Your task to perform on an android device: toggle translation in the chrome app Image 0: 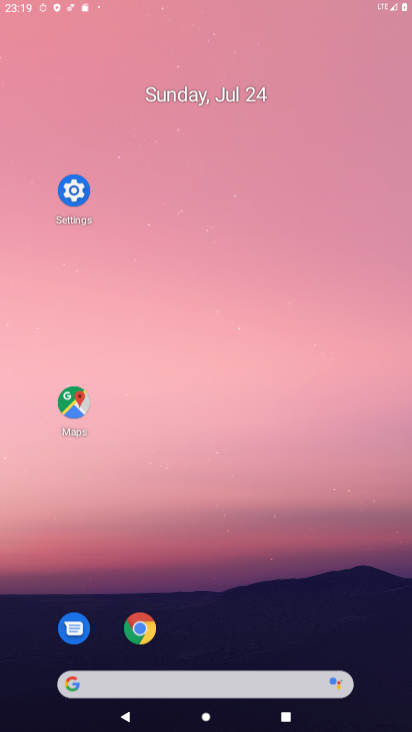
Step 0: drag from (215, 544) to (229, 29)
Your task to perform on an android device: toggle translation in the chrome app Image 1: 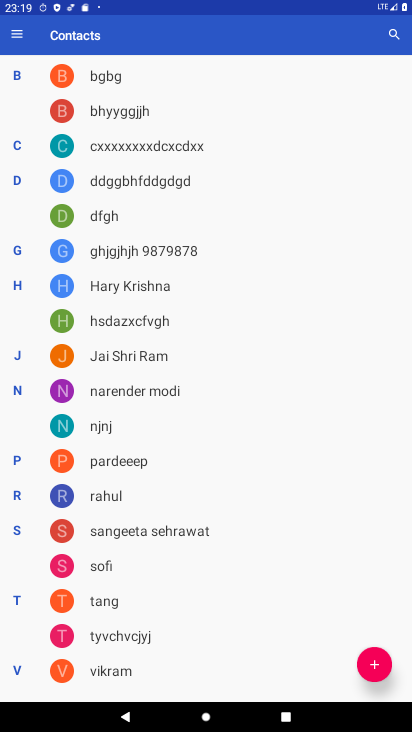
Step 1: press back button
Your task to perform on an android device: toggle translation in the chrome app Image 2: 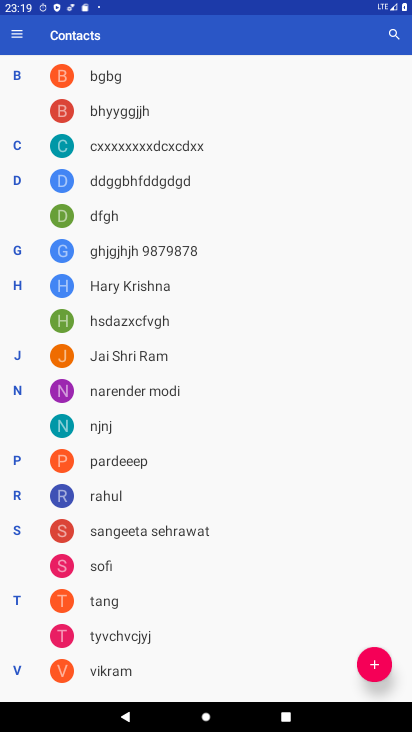
Step 2: press back button
Your task to perform on an android device: toggle translation in the chrome app Image 3: 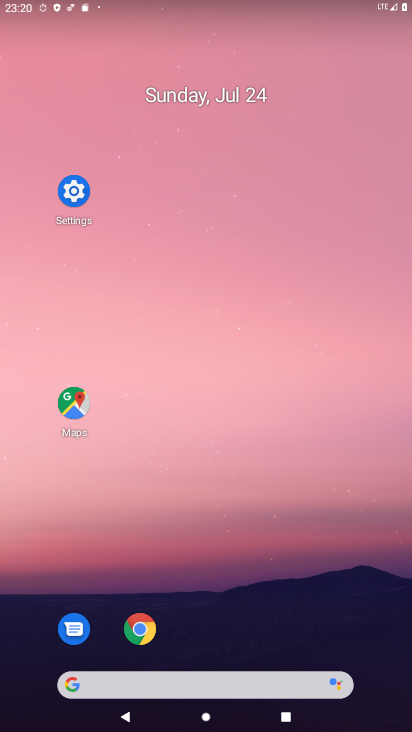
Step 3: drag from (161, 424) to (143, 269)
Your task to perform on an android device: toggle translation in the chrome app Image 4: 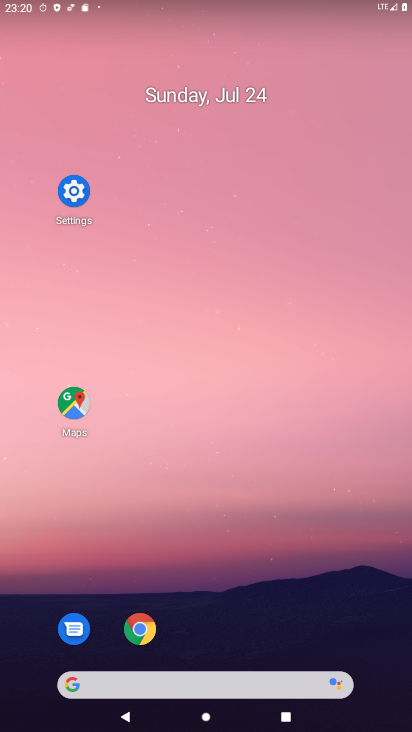
Step 4: drag from (206, 589) to (200, 207)
Your task to perform on an android device: toggle translation in the chrome app Image 5: 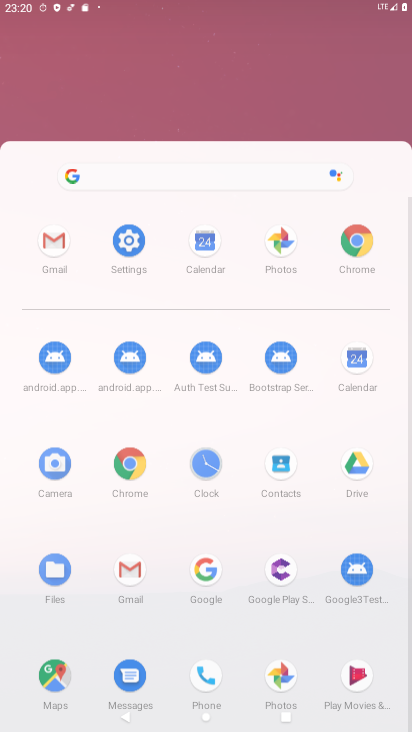
Step 5: drag from (230, 345) to (217, 232)
Your task to perform on an android device: toggle translation in the chrome app Image 6: 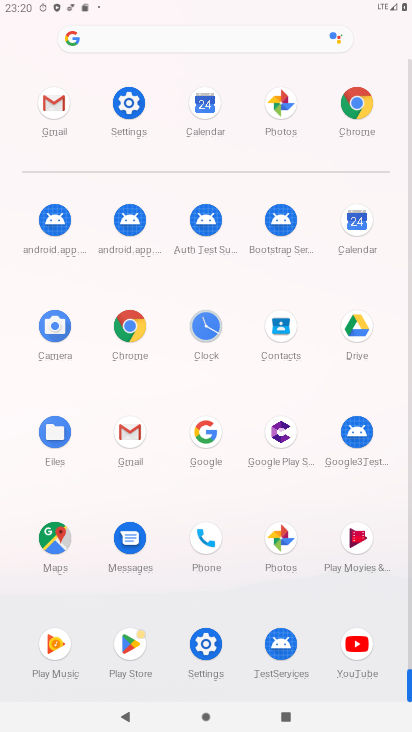
Step 6: click (132, 314)
Your task to perform on an android device: toggle translation in the chrome app Image 7: 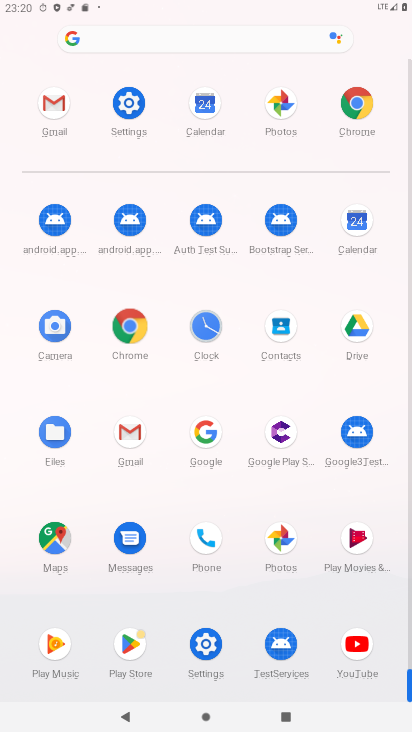
Step 7: click (131, 323)
Your task to perform on an android device: toggle translation in the chrome app Image 8: 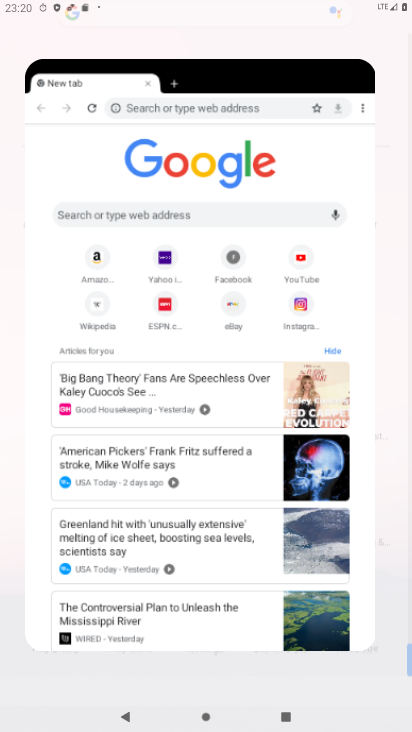
Step 8: click (128, 329)
Your task to perform on an android device: toggle translation in the chrome app Image 9: 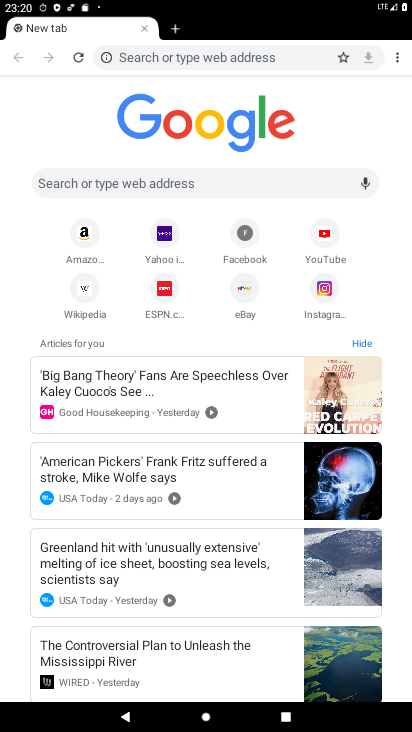
Step 9: click (396, 57)
Your task to perform on an android device: toggle translation in the chrome app Image 10: 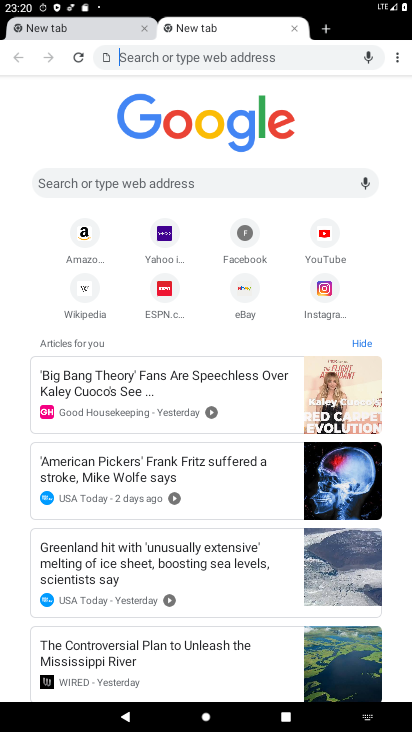
Step 10: click (394, 61)
Your task to perform on an android device: toggle translation in the chrome app Image 11: 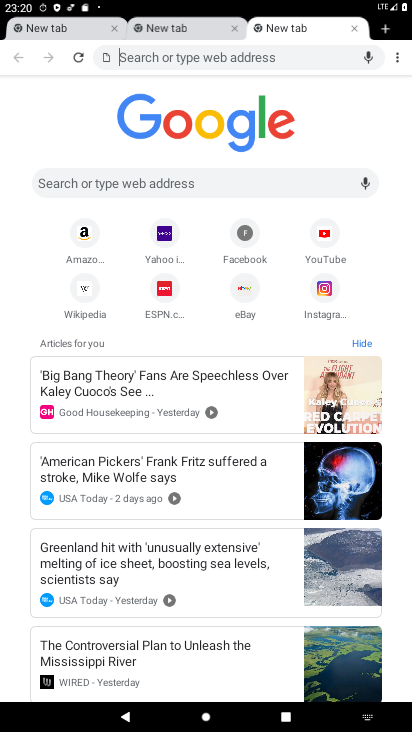
Step 11: click (394, 56)
Your task to perform on an android device: toggle translation in the chrome app Image 12: 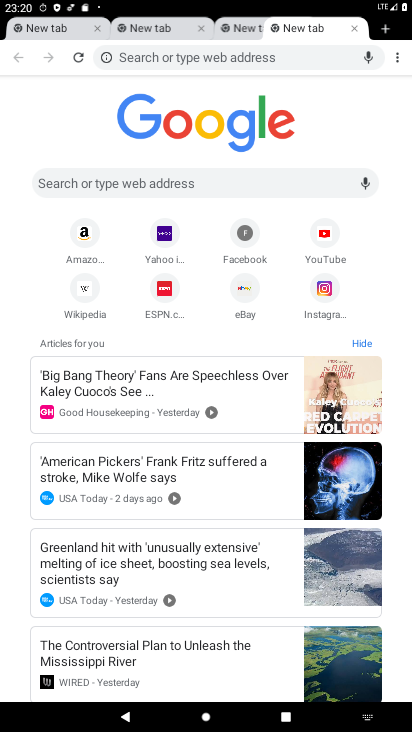
Step 12: drag from (249, 310) to (217, 408)
Your task to perform on an android device: toggle translation in the chrome app Image 13: 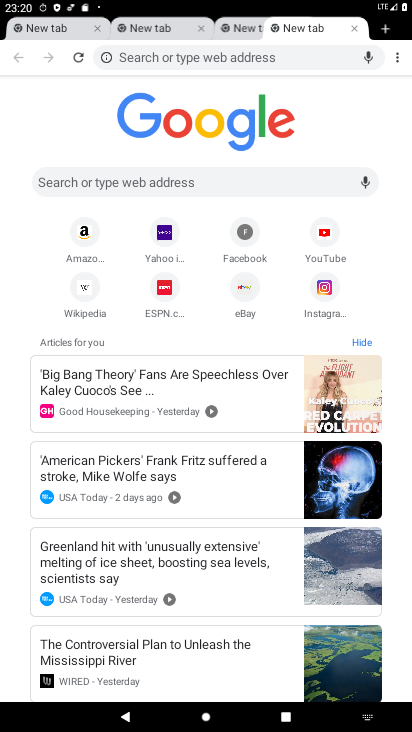
Step 13: drag from (397, 55) to (340, 316)
Your task to perform on an android device: toggle translation in the chrome app Image 14: 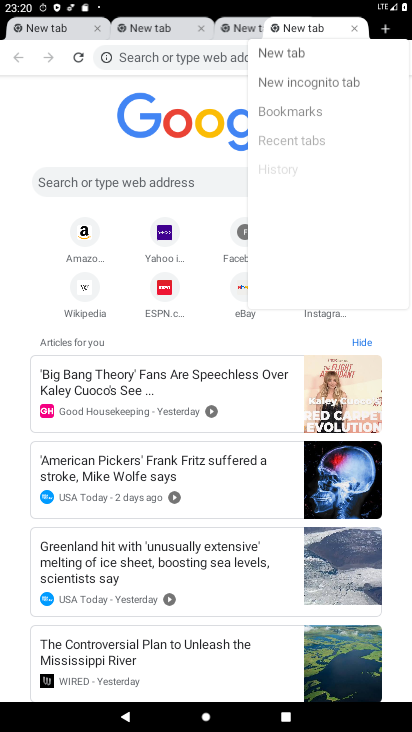
Step 14: click (397, 60)
Your task to perform on an android device: toggle translation in the chrome app Image 15: 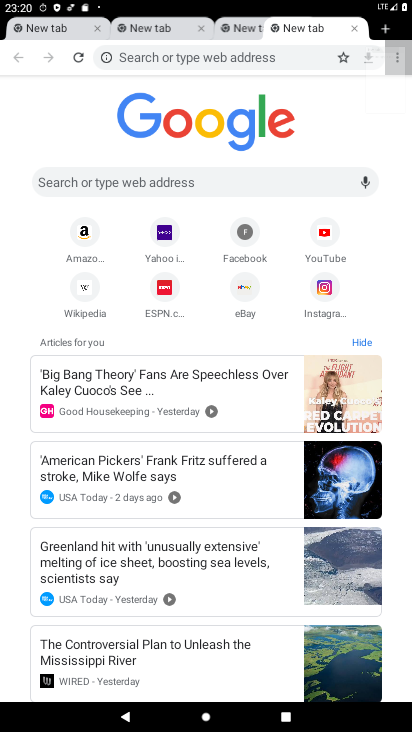
Step 15: drag from (397, 64) to (289, 269)
Your task to perform on an android device: toggle translation in the chrome app Image 16: 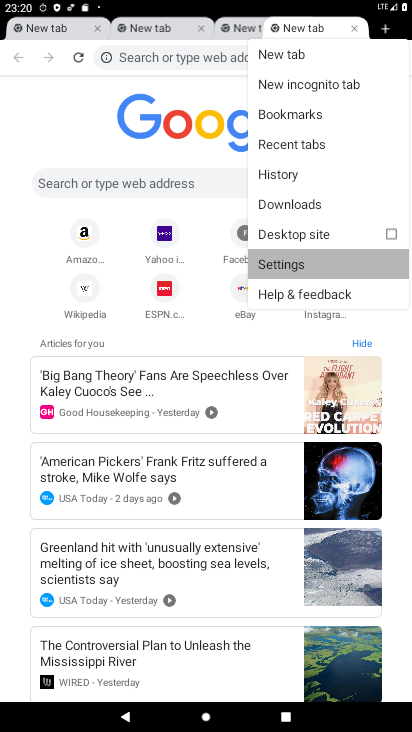
Step 16: click (296, 256)
Your task to perform on an android device: toggle translation in the chrome app Image 17: 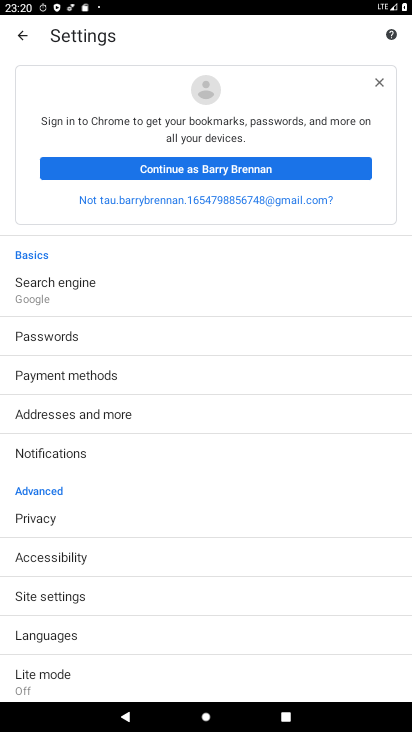
Step 17: drag from (136, 591) to (121, 185)
Your task to perform on an android device: toggle translation in the chrome app Image 18: 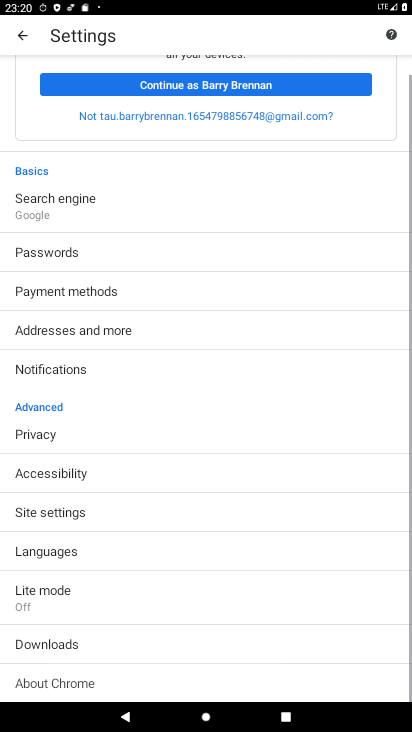
Step 18: drag from (119, 441) to (110, 291)
Your task to perform on an android device: toggle translation in the chrome app Image 19: 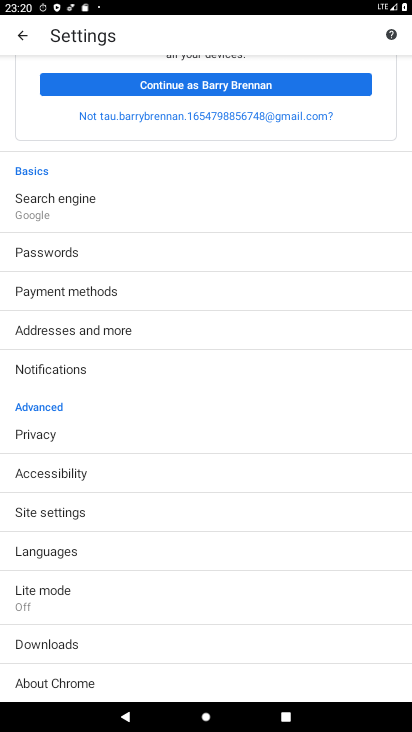
Step 19: click (122, 560)
Your task to perform on an android device: toggle translation in the chrome app Image 20: 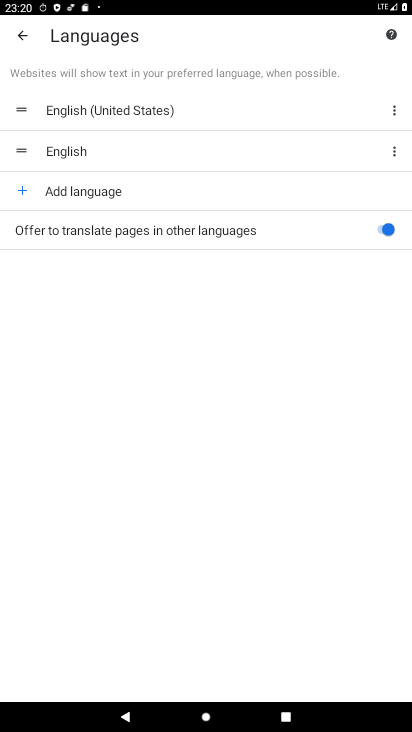
Step 20: click (393, 229)
Your task to perform on an android device: toggle translation in the chrome app Image 21: 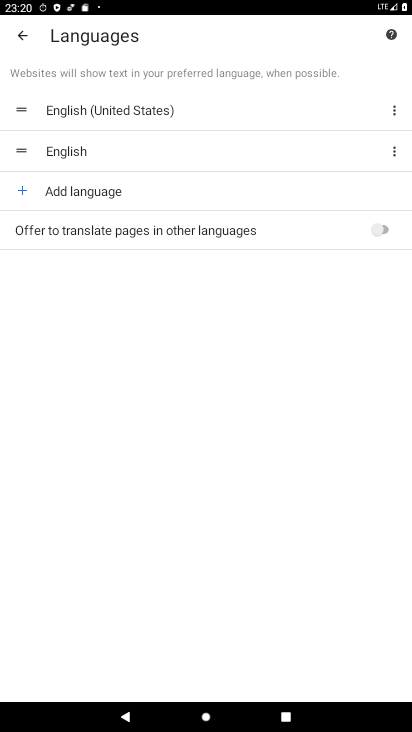
Step 21: task complete